Your task to perform on an android device: remove spam from my inbox in the gmail app Image 0: 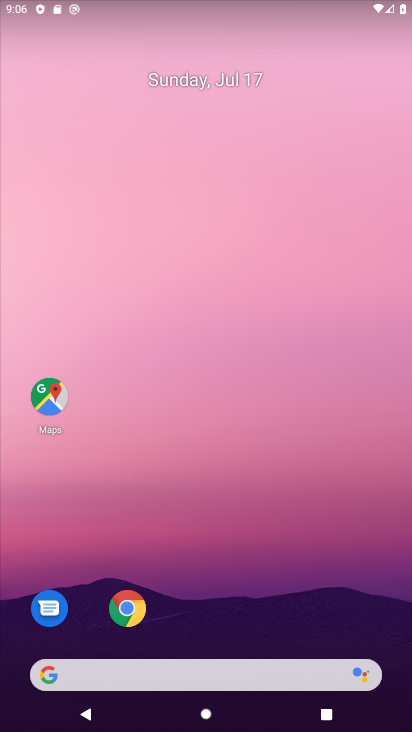
Step 0: drag from (205, 648) to (319, 62)
Your task to perform on an android device: remove spam from my inbox in the gmail app Image 1: 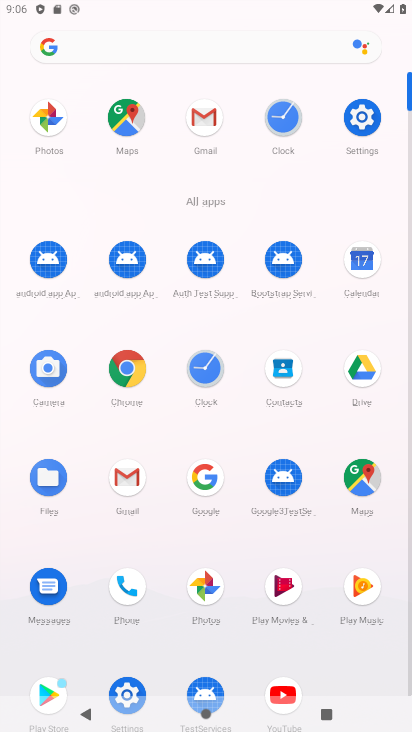
Step 1: click (132, 484)
Your task to perform on an android device: remove spam from my inbox in the gmail app Image 2: 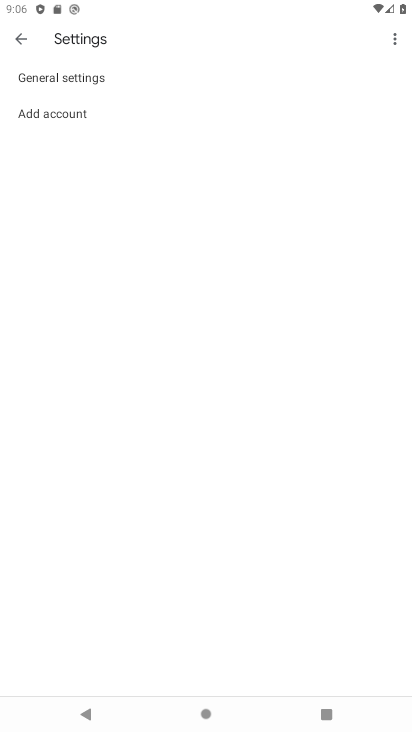
Step 2: press back button
Your task to perform on an android device: remove spam from my inbox in the gmail app Image 3: 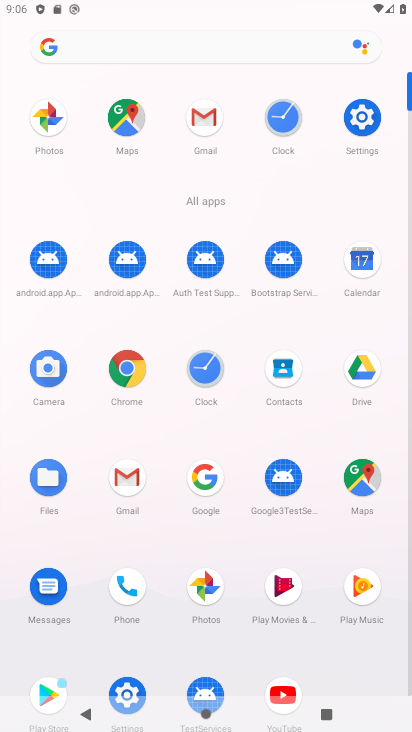
Step 3: click (143, 497)
Your task to perform on an android device: remove spam from my inbox in the gmail app Image 4: 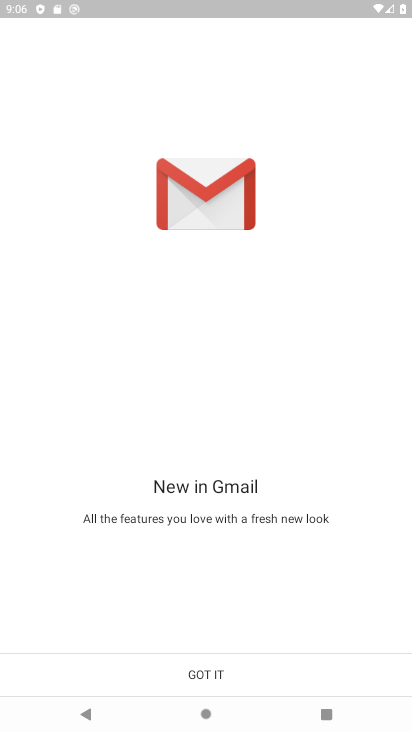
Step 4: click (206, 652)
Your task to perform on an android device: remove spam from my inbox in the gmail app Image 5: 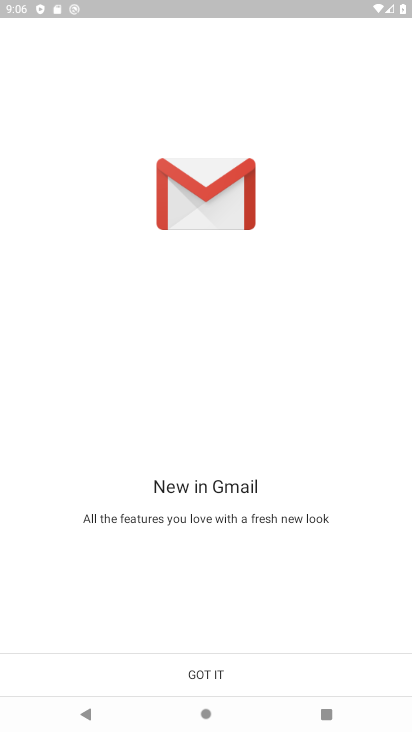
Step 5: click (224, 675)
Your task to perform on an android device: remove spam from my inbox in the gmail app Image 6: 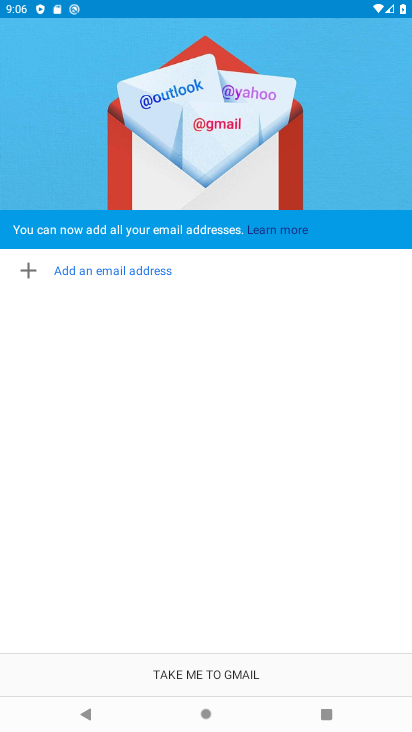
Step 6: click (271, 679)
Your task to perform on an android device: remove spam from my inbox in the gmail app Image 7: 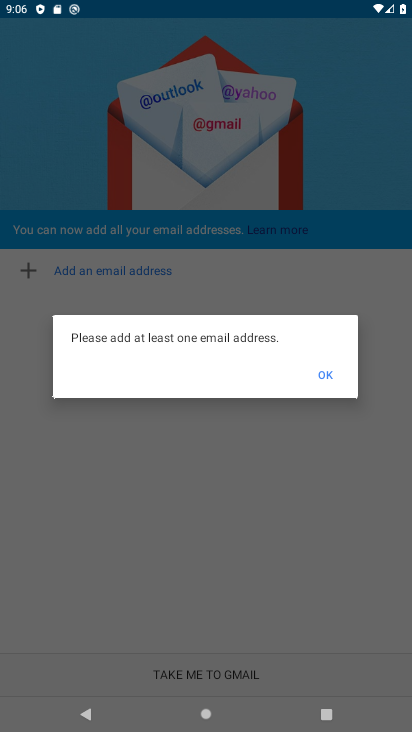
Step 7: task complete